Your task to perform on an android device: turn on improve location accuracy Image 0: 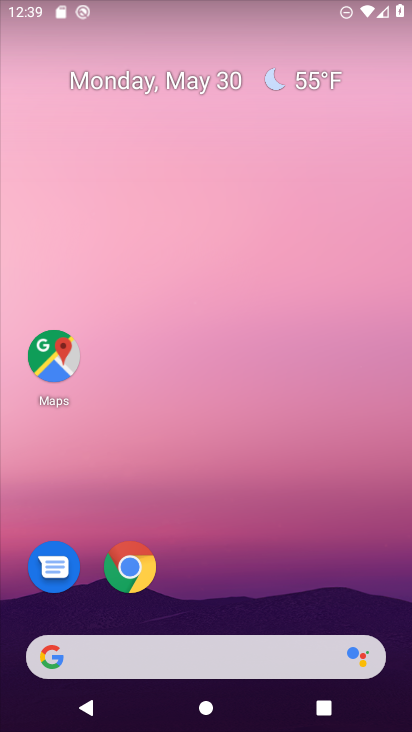
Step 0: press home button
Your task to perform on an android device: turn on improve location accuracy Image 1: 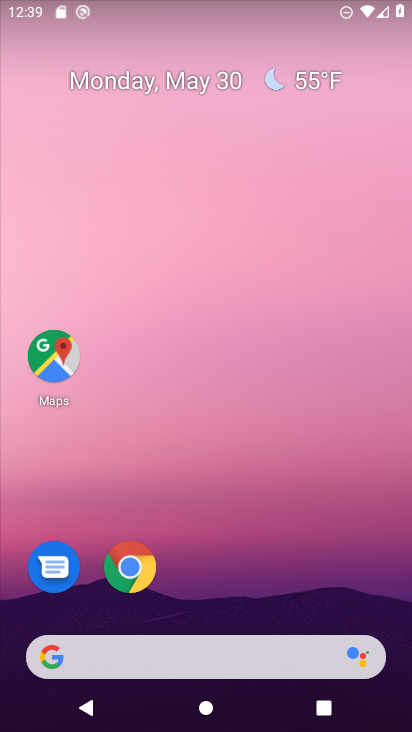
Step 1: drag from (222, 611) to (261, 35)
Your task to perform on an android device: turn on improve location accuracy Image 2: 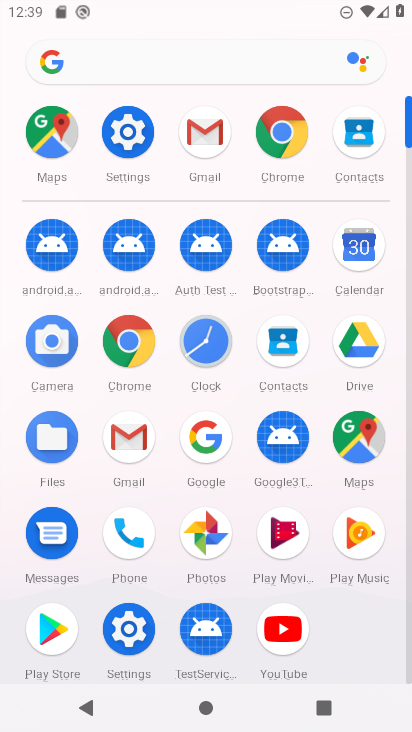
Step 2: click (125, 125)
Your task to perform on an android device: turn on improve location accuracy Image 3: 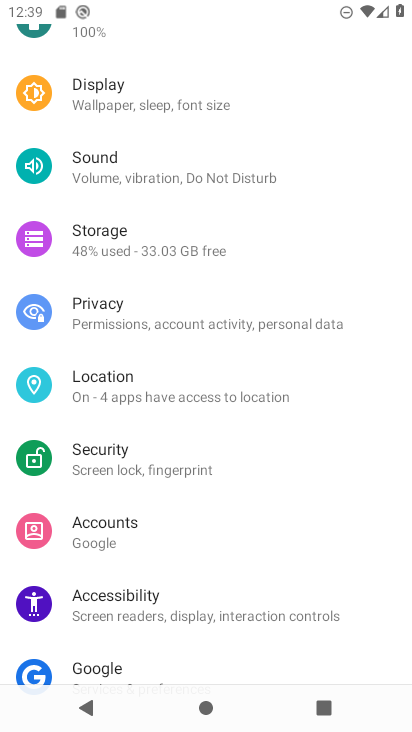
Step 3: click (150, 376)
Your task to perform on an android device: turn on improve location accuracy Image 4: 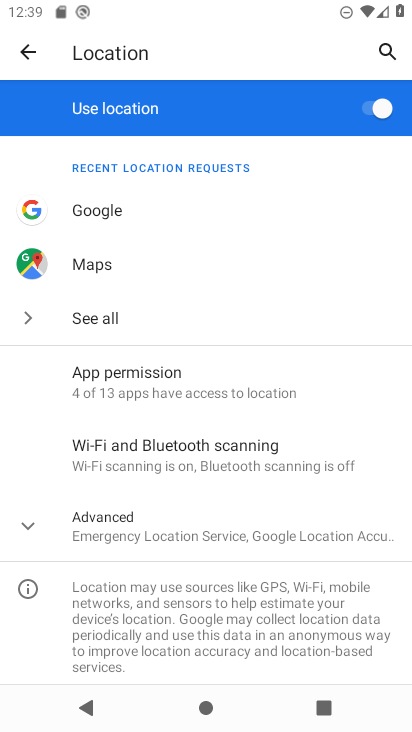
Step 4: click (28, 526)
Your task to perform on an android device: turn on improve location accuracy Image 5: 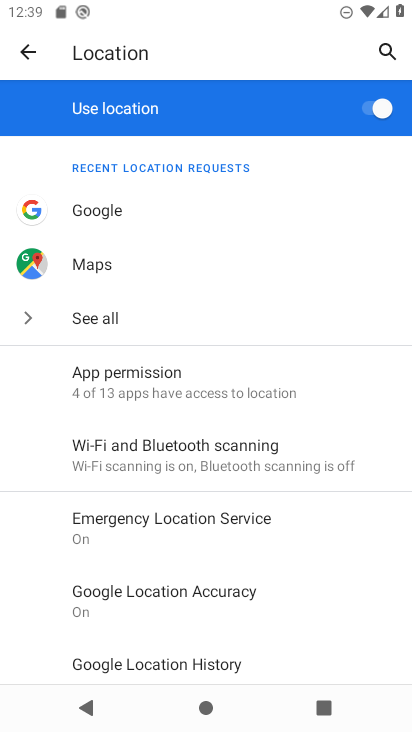
Step 5: click (193, 604)
Your task to perform on an android device: turn on improve location accuracy Image 6: 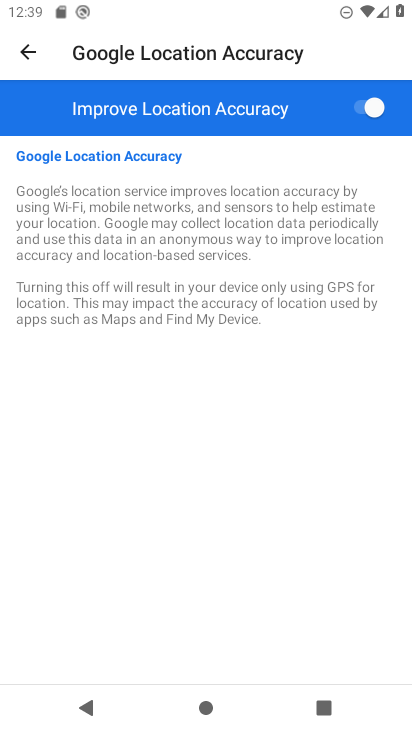
Step 6: task complete